Your task to perform on an android device: toggle data saver in the chrome app Image 0: 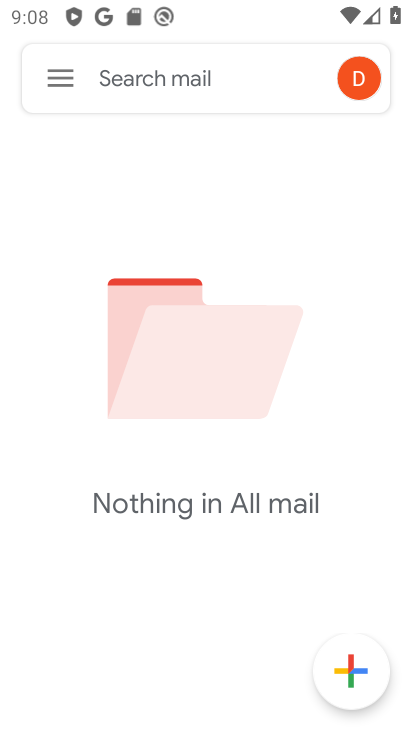
Step 0: press home button
Your task to perform on an android device: toggle data saver in the chrome app Image 1: 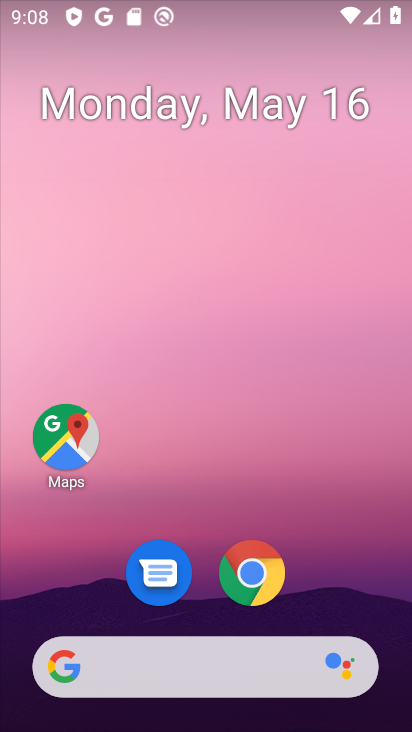
Step 1: click (252, 568)
Your task to perform on an android device: toggle data saver in the chrome app Image 2: 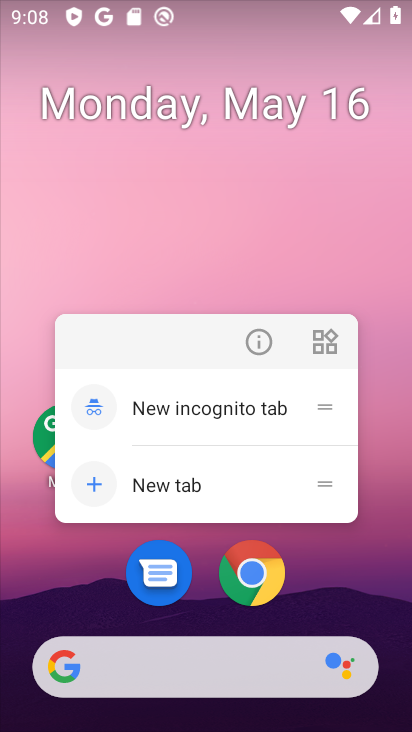
Step 2: click (253, 576)
Your task to perform on an android device: toggle data saver in the chrome app Image 3: 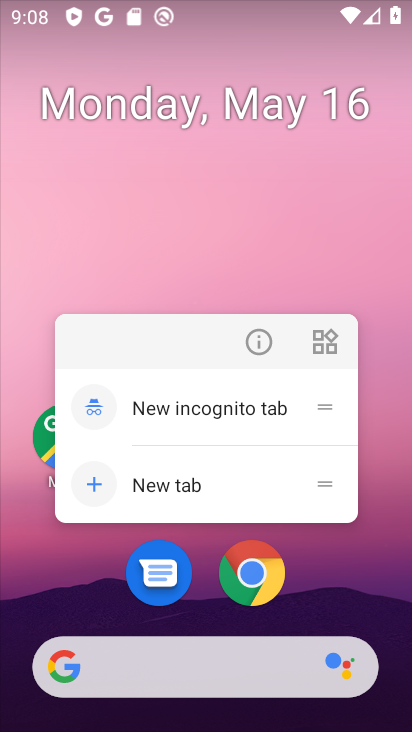
Step 3: click (251, 584)
Your task to perform on an android device: toggle data saver in the chrome app Image 4: 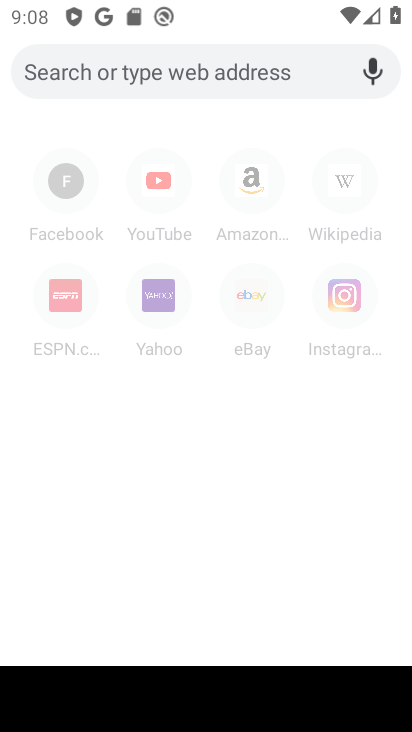
Step 4: press back button
Your task to perform on an android device: toggle data saver in the chrome app Image 5: 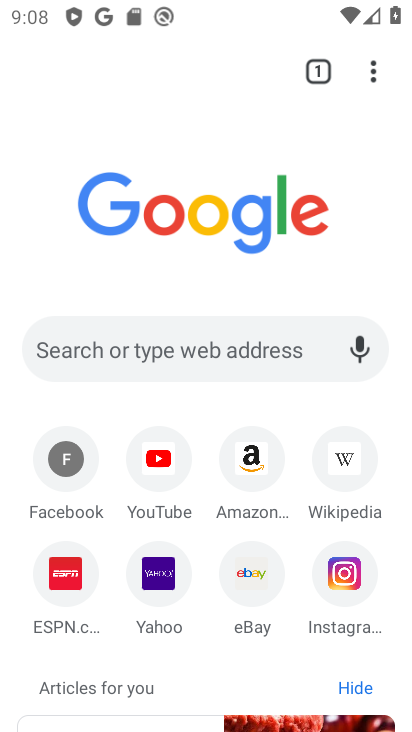
Step 5: drag from (383, 62) to (219, 597)
Your task to perform on an android device: toggle data saver in the chrome app Image 6: 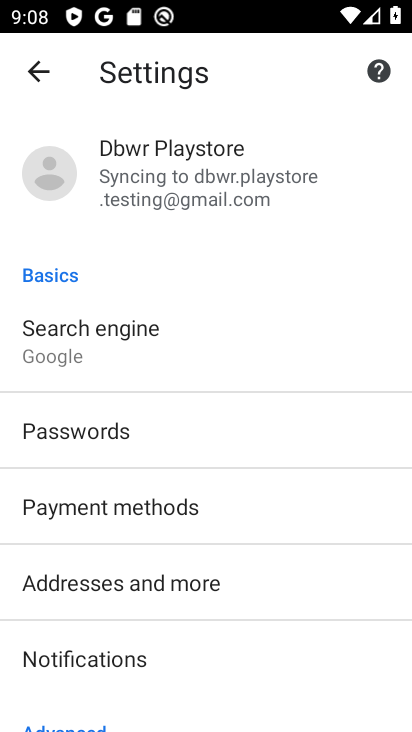
Step 6: drag from (220, 595) to (275, 218)
Your task to perform on an android device: toggle data saver in the chrome app Image 7: 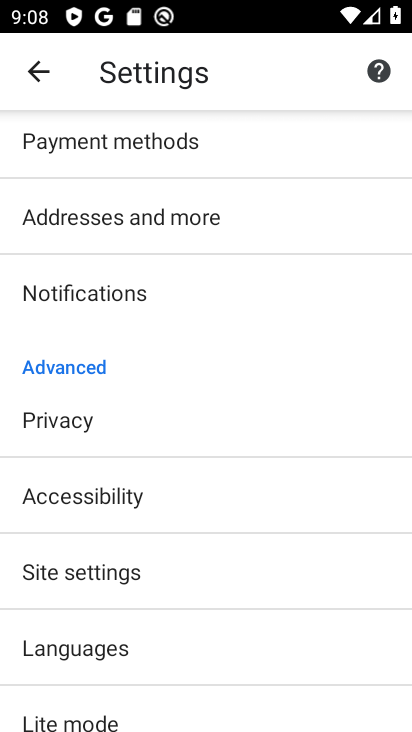
Step 7: drag from (126, 573) to (189, 336)
Your task to perform on an android device: toggle data saver in the chrome app Image 8: 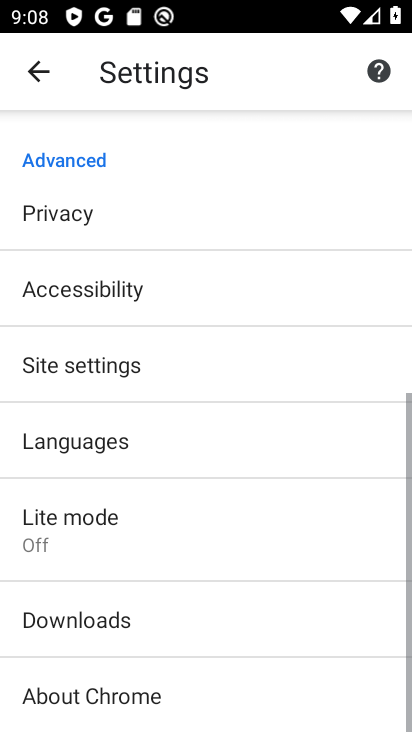
Step 8: click (114, 619)
Your task to perform on an android device: toggle data saver in the chrome app Image 9: 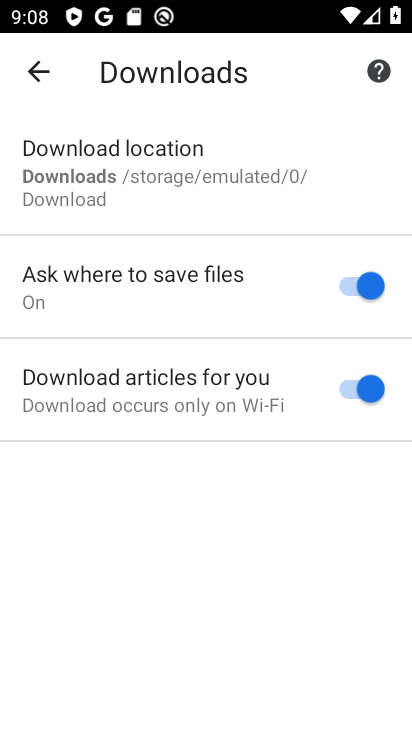
Step 9: click (45, 79)
Your task to perform on an android device: toggle data saver in the chrome app Image 10: 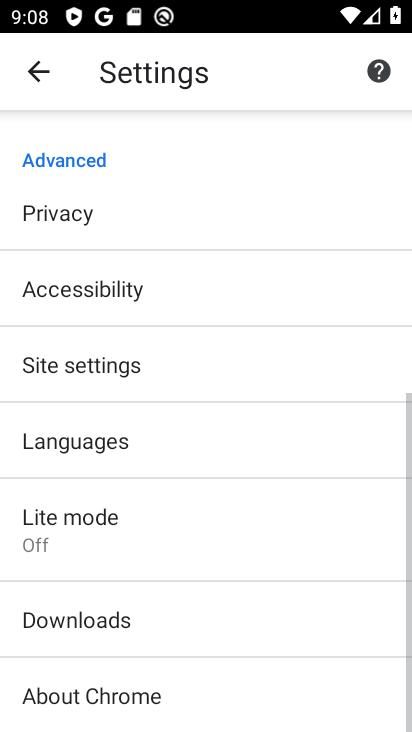
Step 10: click (142, 526)
Your task to perform on an android device: toggle data saver in the chrome app Image 11: 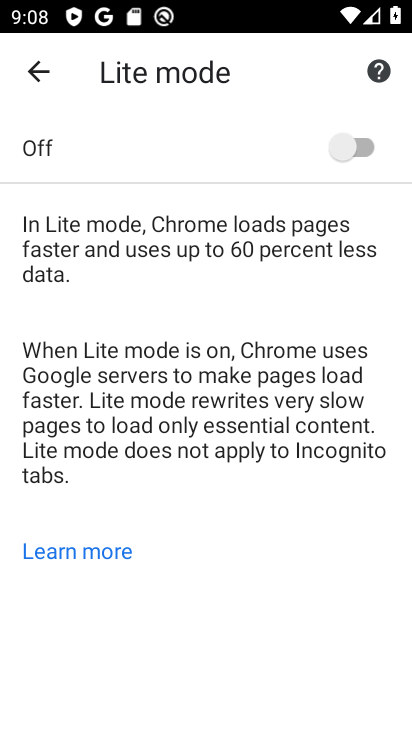
Step 11: click (330, 137)
Your task to perform on an android device: toggle data saver in the chrome app Image 12: 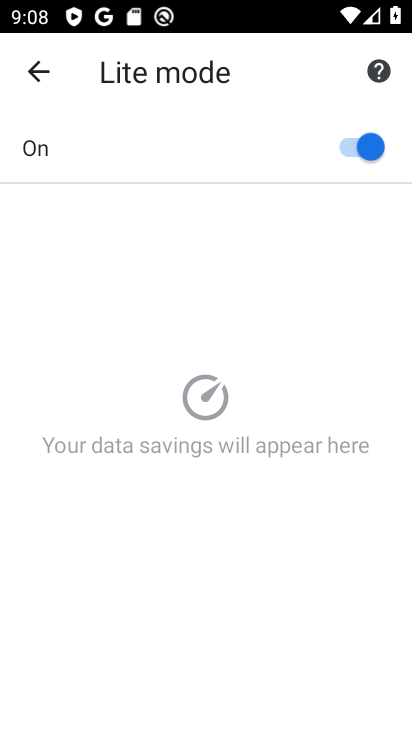
Step 12: task complete